Your task to perform on an android device: Check the weather Image 0: 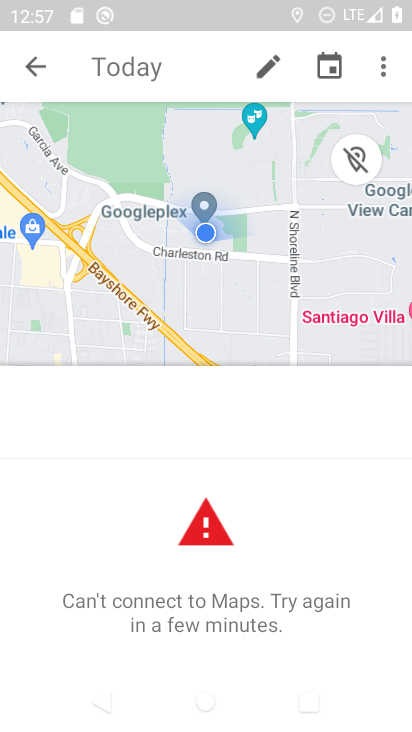
Step 0: press home button
Your task to perform on an android device: Check the weather Image 1: 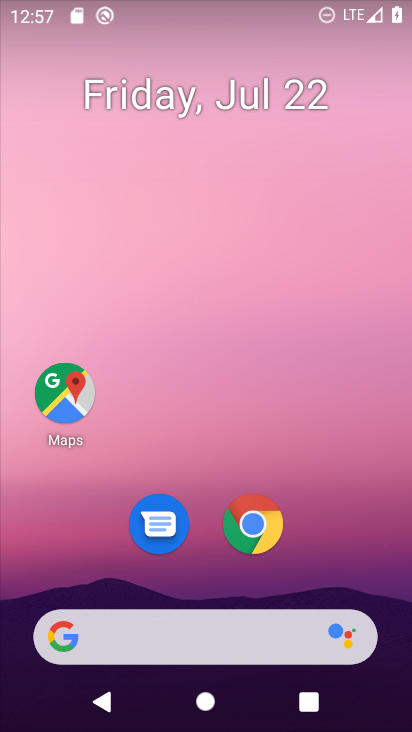
Step 1: click (194, 644)
Your task to perform on an android device: Check the weather Image 2: 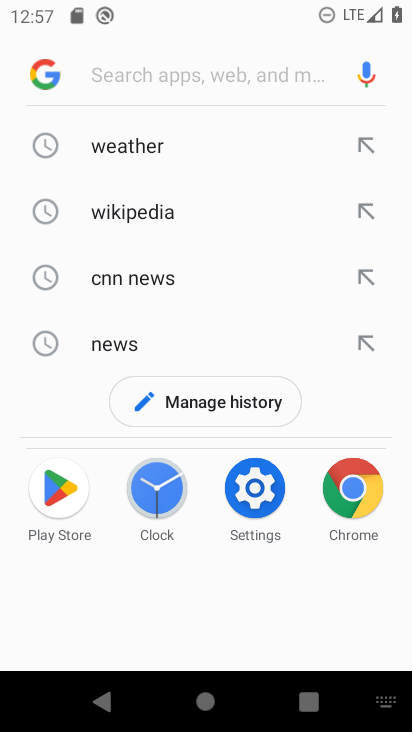
Step 2: click (154, 146)
Your task to perform on an android device: Check the weather Image 3: 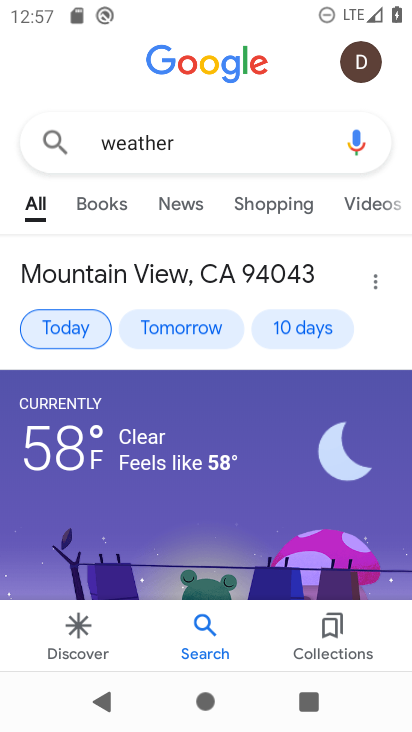
Step 3: click (74, 330)
Your task to perform on an android device: Check the weather Image 4: 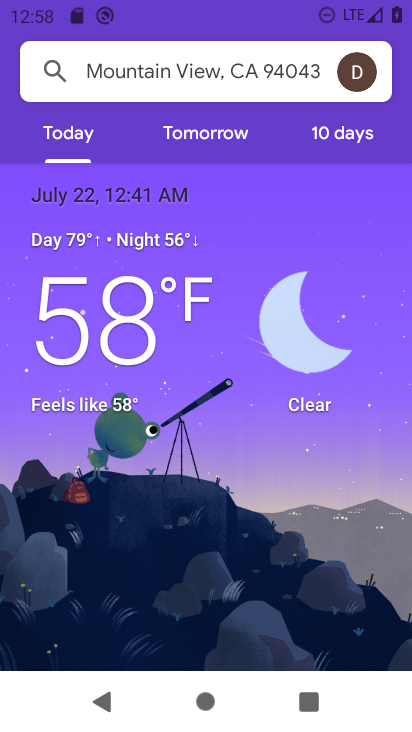
Step 4: task complete